Your task to perform on an android device: Open CNN.com Image 0: 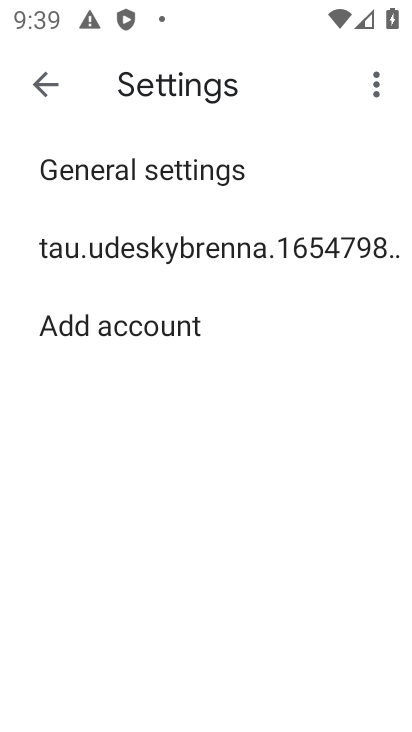
Step 0: press home button
Your task to perform on an android device: Open CNN.com Image 1: 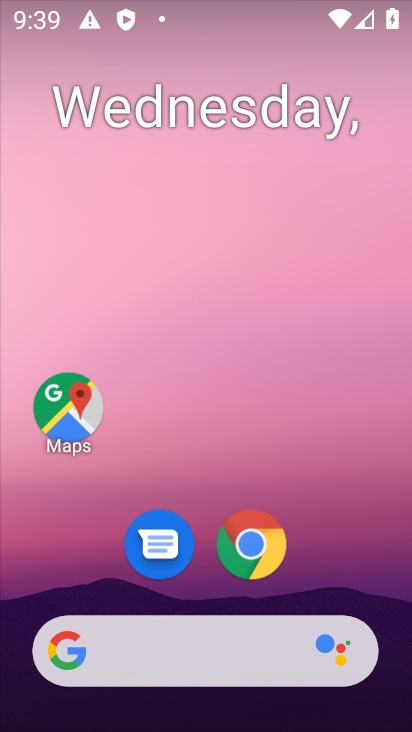
Step 1: click (236, 649)
Your task to perform on an android device: Open CNN.com Image 2: 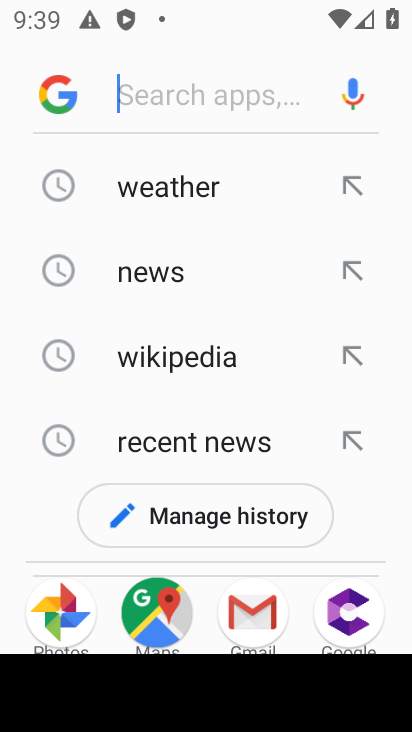
Step 2: type "CNN.com"
Your task to perform on an android device: Open CNN.com Image 3: 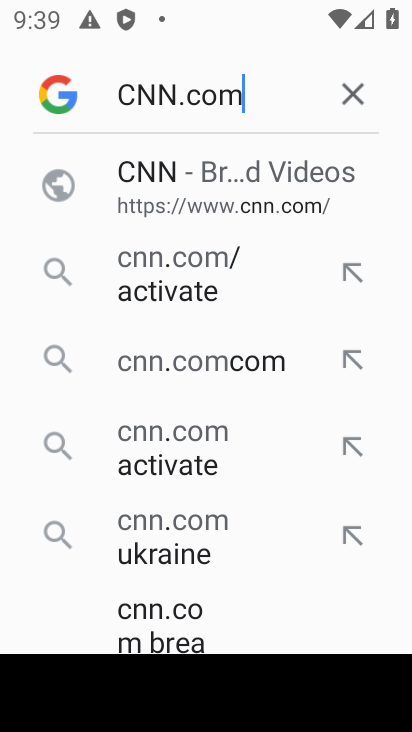
Step 3: press enter
Your task to perform on an android device: Open CNN.com Image 4: 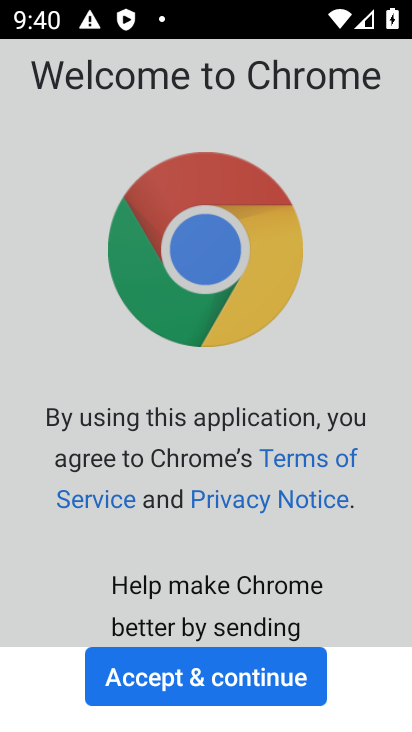
Step 4: click (259, 679)
Your task to perform on an android device: Open CNN.com Image 5: 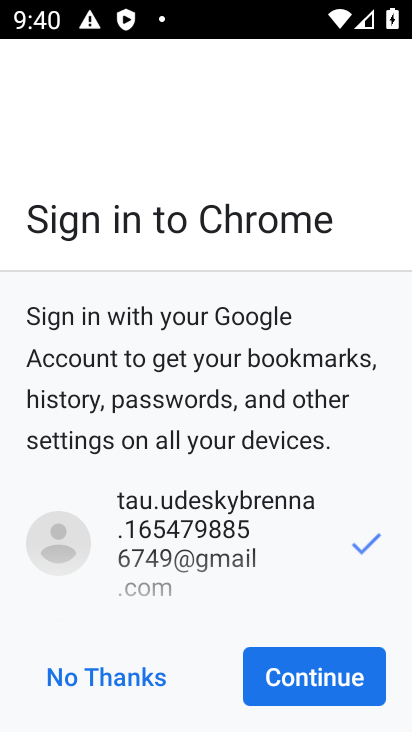
Step 5: click (109, 657)
Your task to perform on an android device: Open CNN.com Image 6: 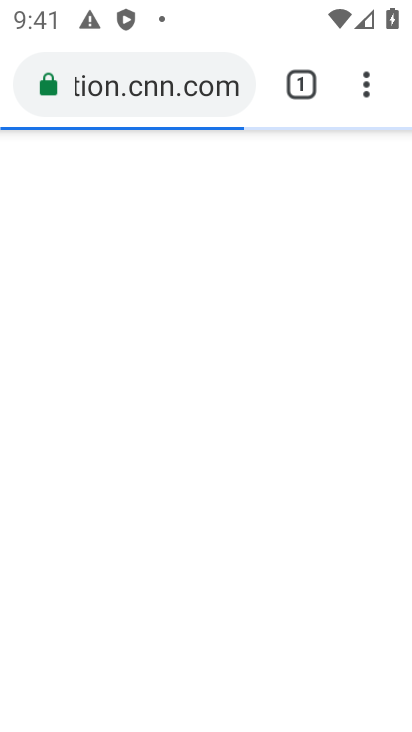
Step 6: task complete